Your task to perform on an android device: stop showing notifications on the lock screen Image 0: 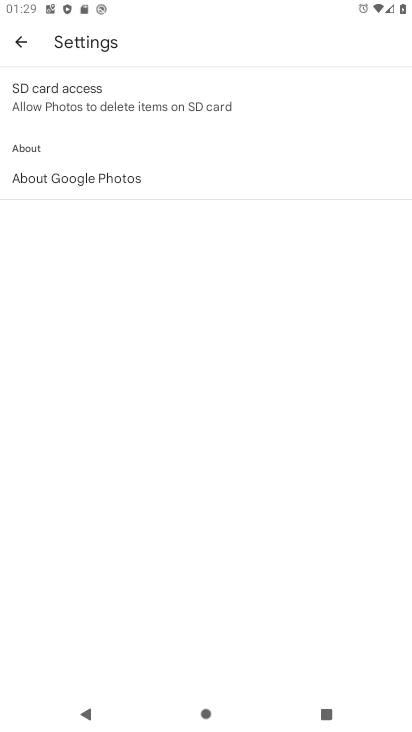
Step 0: press home button
Your task to perform on an android device: stop showing notifications on the lock screen Image 1: 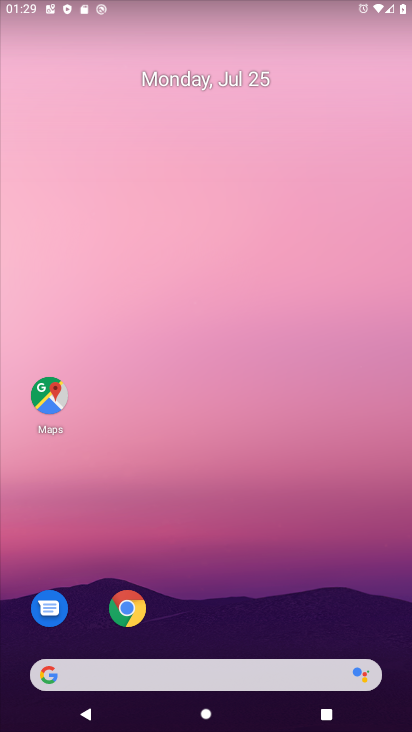
Step 1: drag from (234, 630) to (211, 57)
Your task to perform on an android device: stop showing notifications on the lock screen Image 2: 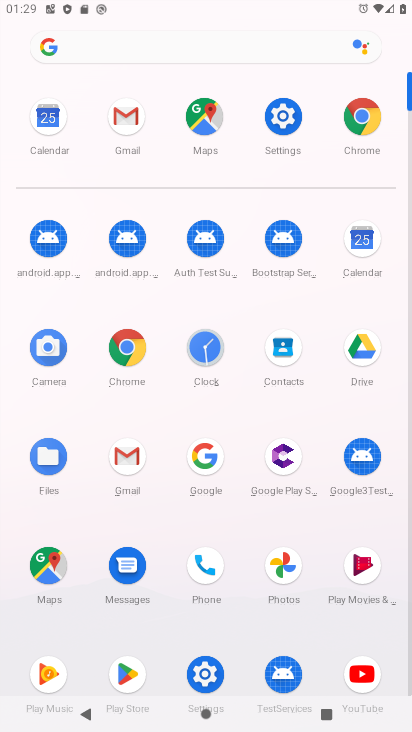
Step 2: click (275, 120)
Your task to perform on an android device: stop showing notifications on the lock screen Image 3: 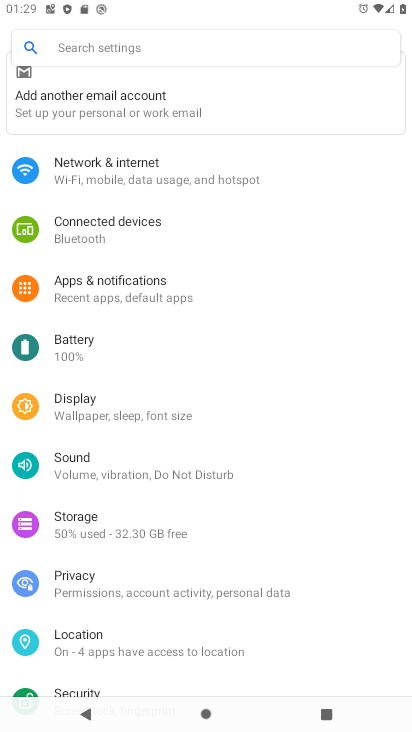
Step 3: click (95, 320)
Your task to perform on an android device: stop showing notifications on the lock screen Image 4: 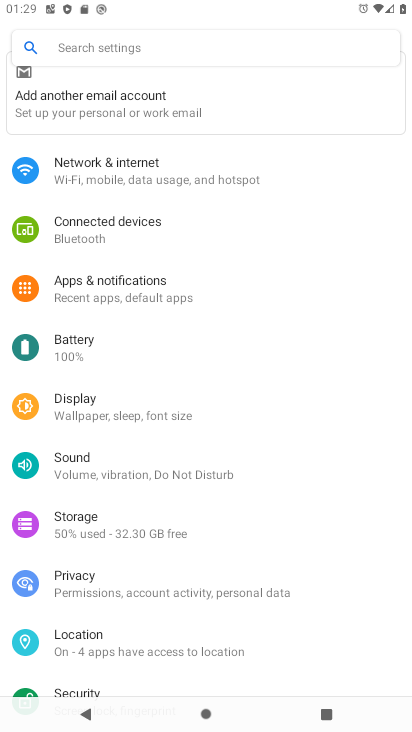
Step 4: click (99, 296)
Your task to perform on an android device: stop showing notifications on the lock screen Image 5: 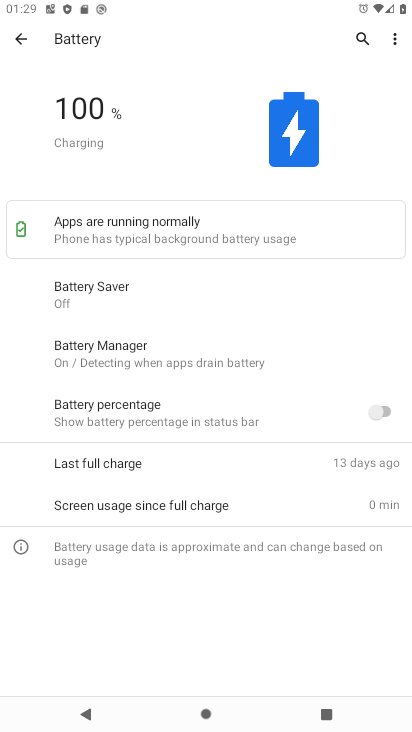
Step 5: click (20, 36)
Your task to perform on an android device: stop showing notifications on the lock screen Image 6: 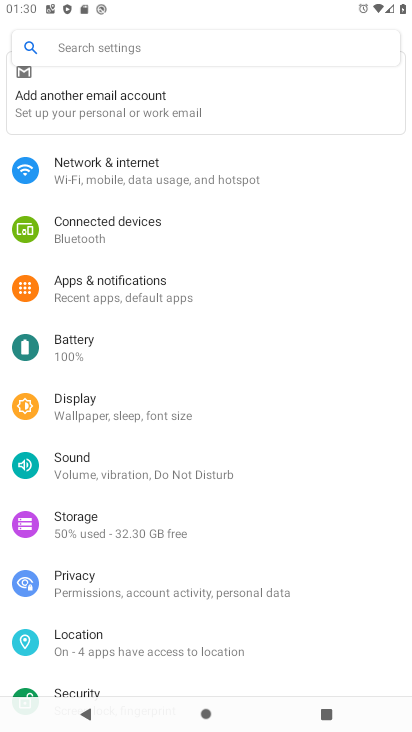
Step 6: click (96, 274)
Your task to perform on an android device: stop showing notifications on the lock screen Image 7: 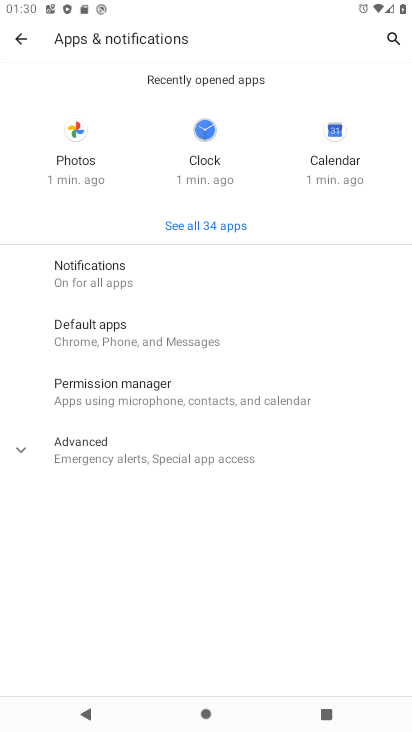
Step 7: click (96, 274)
Your task to perform on an android device: stop showing notifications on the lock screen Image 8: 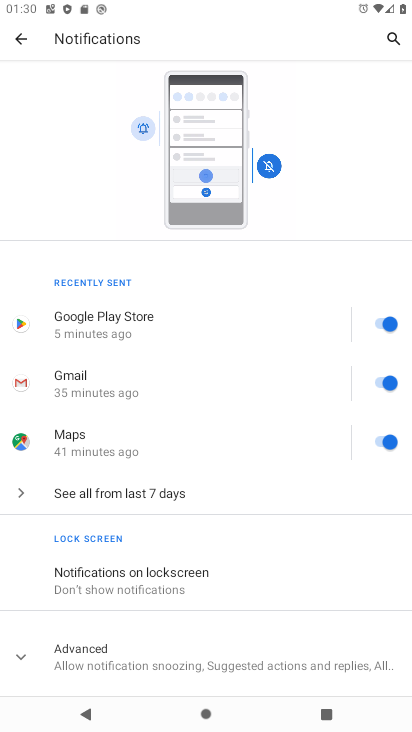
Step 8: click (104, 593)
Your task to perform on an android device: stop showing notifications on the lock screen Image 9: 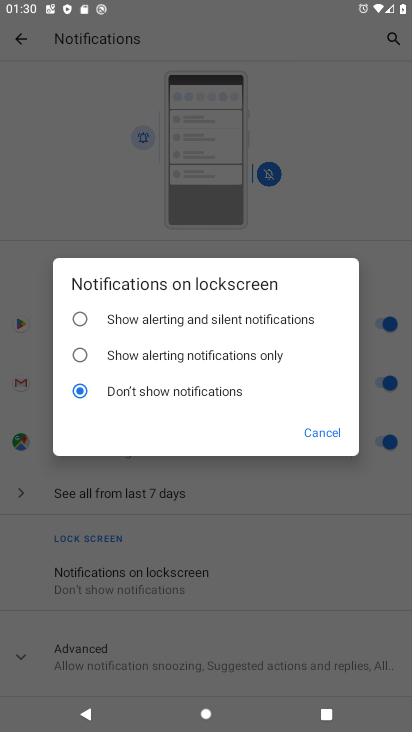
Step 9: task complete